Your task to perform on an android device: Go to Maps Image 0: 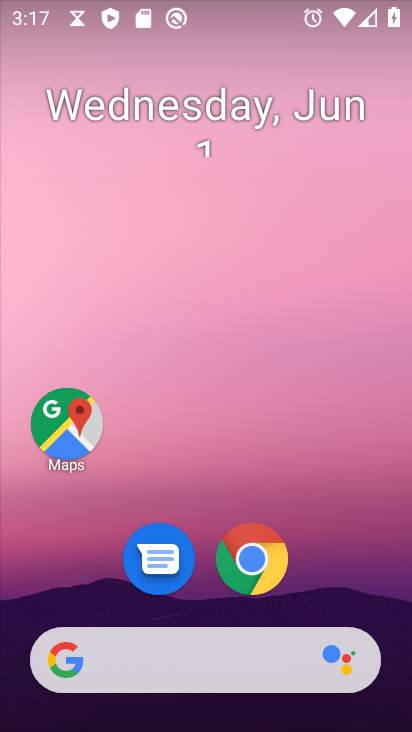
Step 0: drag from (330, 581) to (347, 5)
Your task to perform on an android device: Go to Maps Image 1: 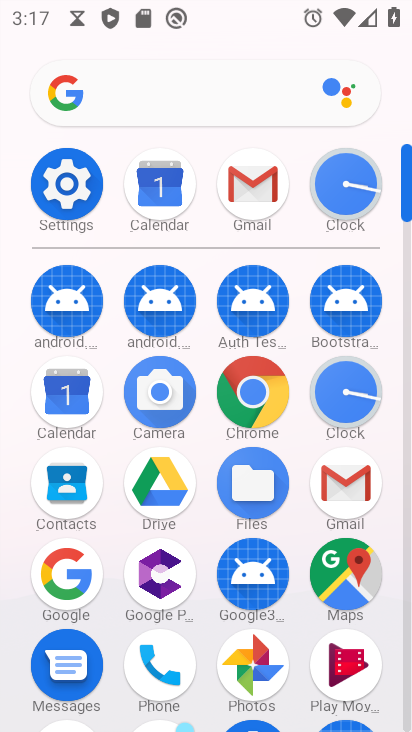
Step 1: click (336, 557)
Your task to perform on an android device: Go to Maps Image 2: 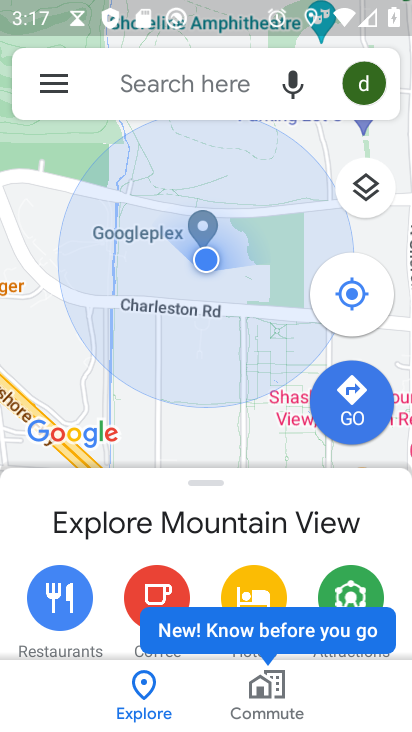
Step 2: task complete